Your task to perform on an android device: turn off airplane mode Image 0: 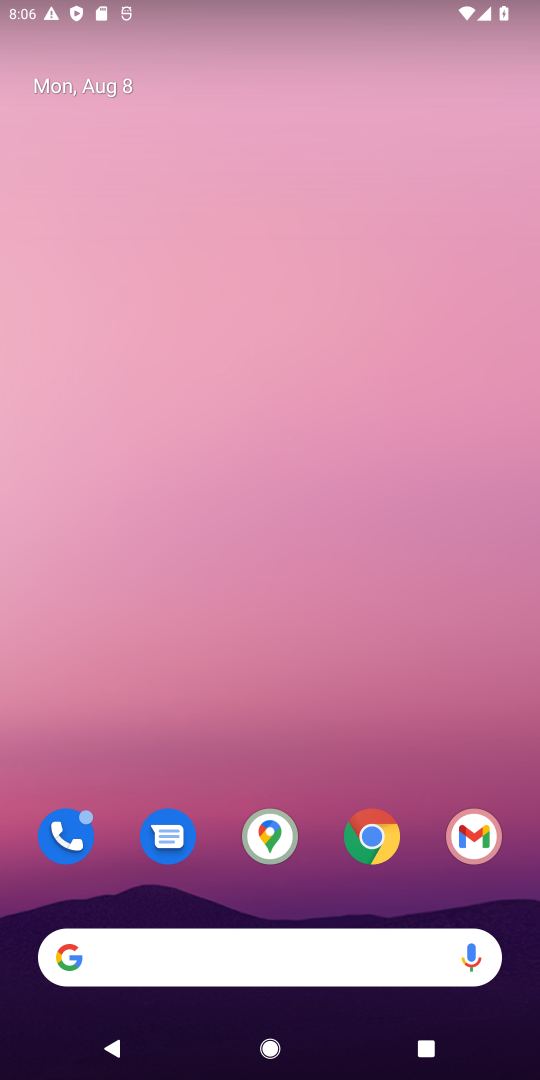
Step 0: drag from (334, 784) to (249, 93)
Your task to perform on an android device: turn off airplane mode Image 1: 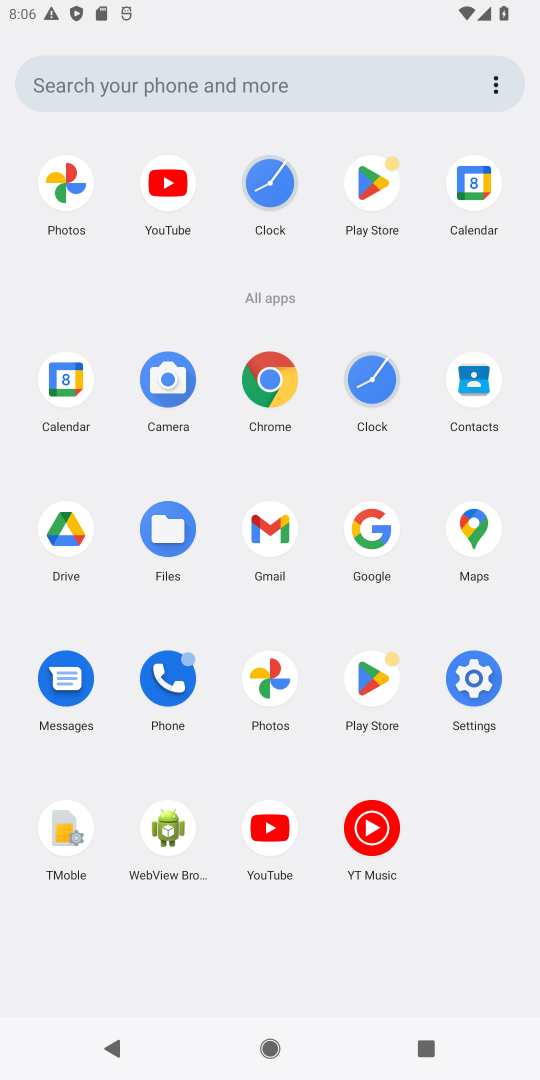
Step 1: click (462, 696)
Your task to perform on an android device: turn off airplane mode Image 2: 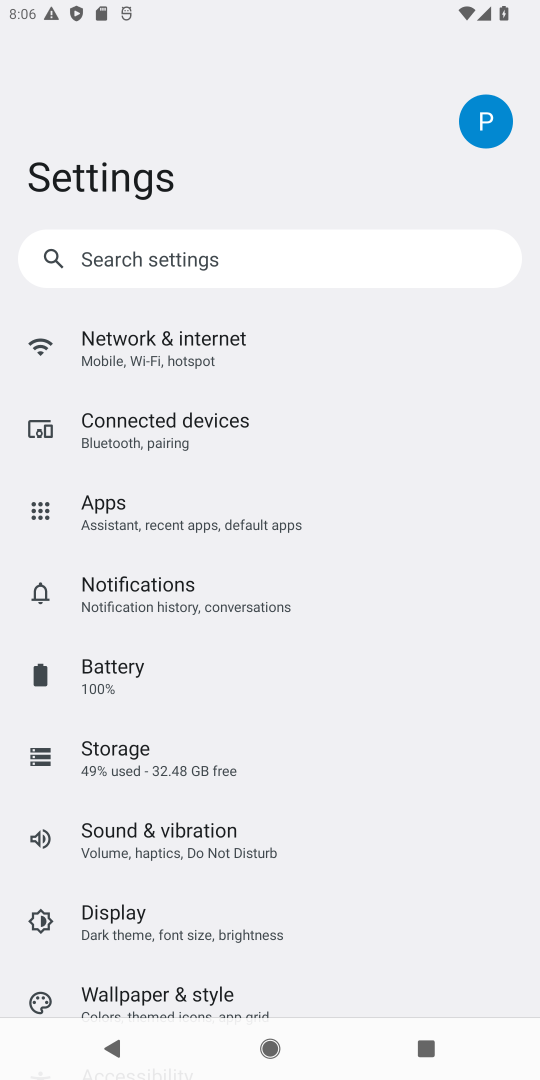
Step 2: click (270, 359)
Your task to perform on an android device: turn off airplane mode Image 3: 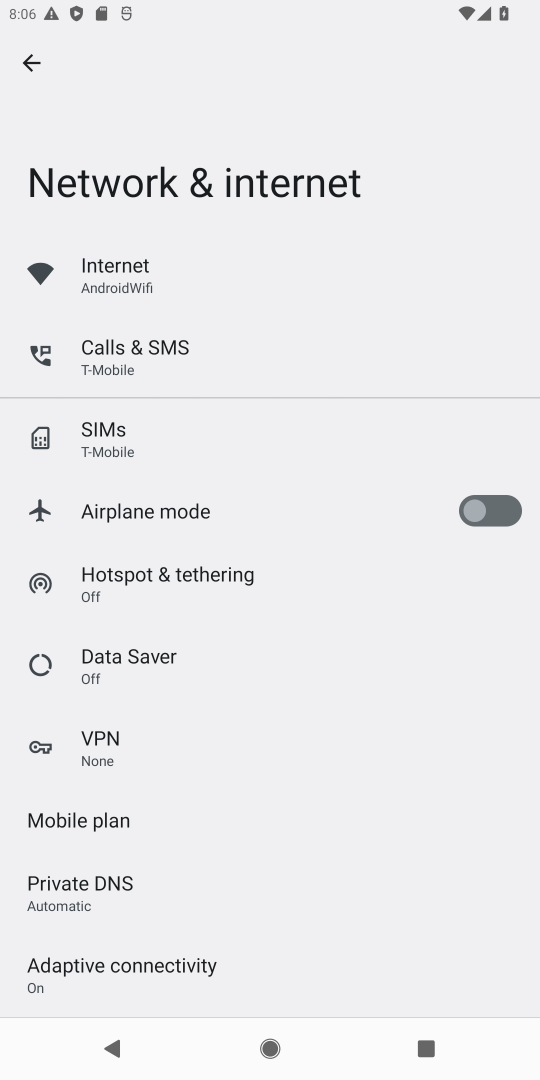
Step 3: task complete